Your task to perform on an android device: Go to Google maps Image 0: 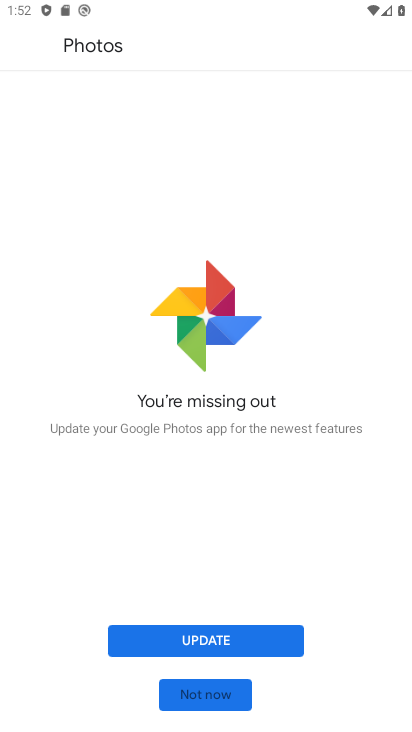
Step 0: press home button
Your task to perform on an android device: Go to Google maps Image 1: 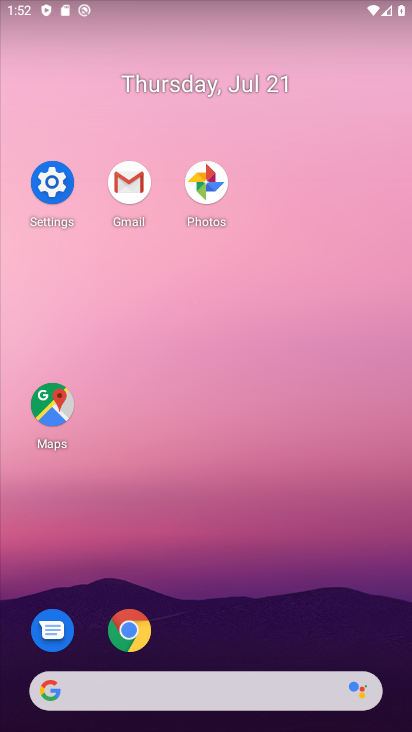
Step 1: click (72, 414)
Your task to perform on an android device: Go to Google maps Image 2: 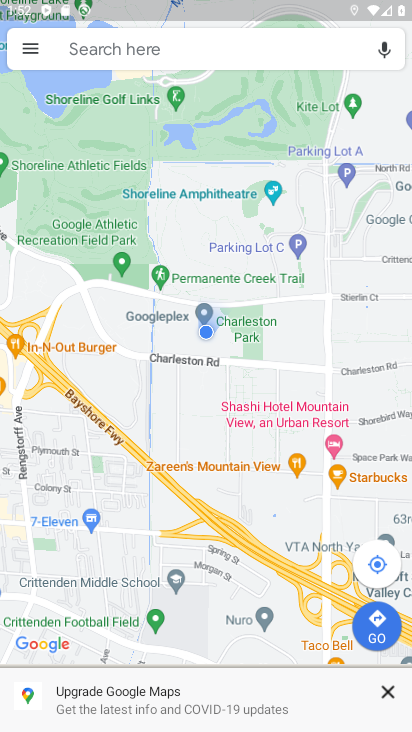
Step 2: task complete